Your task to perform on an android device: stop showing notifications on the lock screen Image 0: 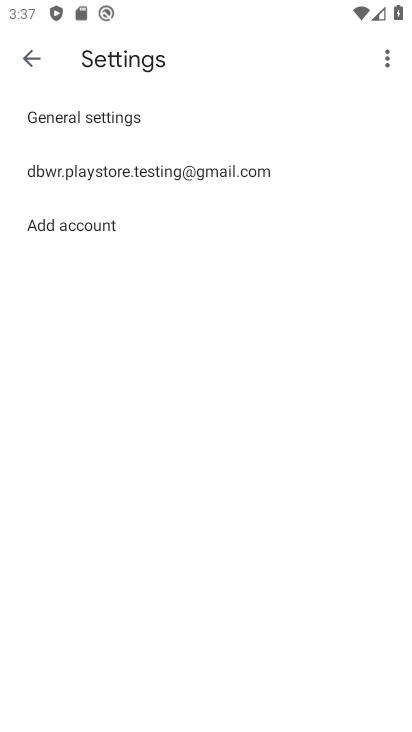
Step 0: press home button
Your task to perform on an android device: stop showing notifications on the lock screen Image 1: 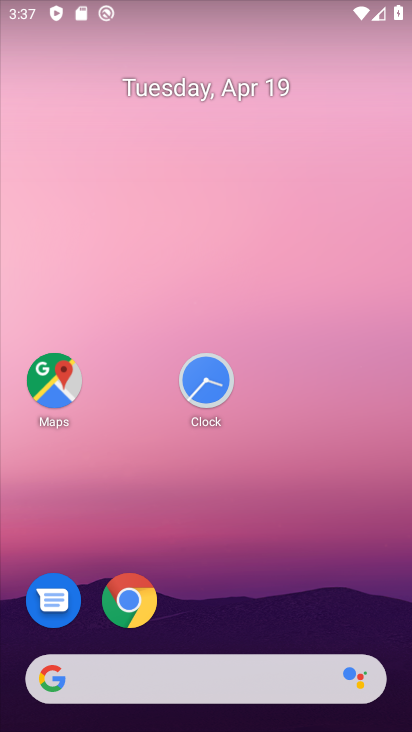
Step 1: drag from (238, 469) to (117, 126)
Your task to perform on an android device: stop showing notifications on the lock screen Image 2: 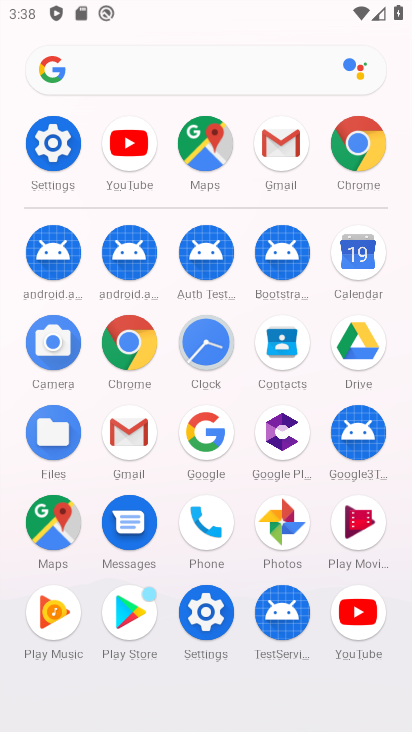
Step 2: click (59, 143)
Your task to perform on an android device: stop showing notifications on the lock screen Image 3: 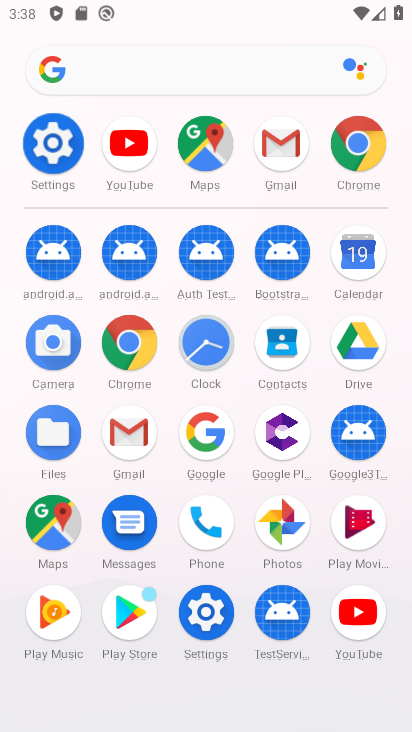
Step 3: click (59, 143)
Your task to perform on an android device: stop showing notifications on the lock screen Image 4: 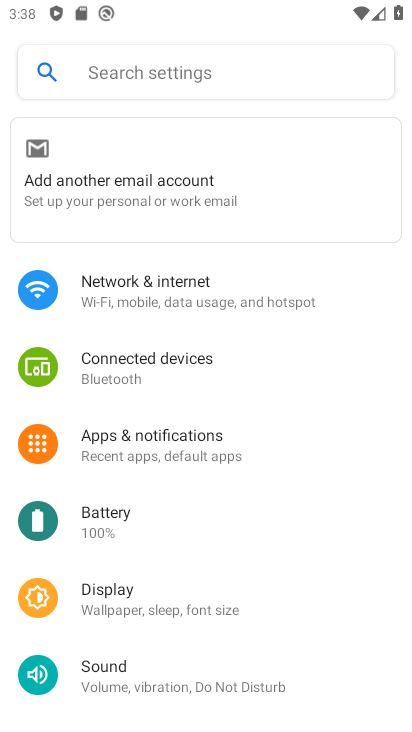
Step 4: click (161, 451)
Your task to perform on an android device: stop showing notifications on the lock screen Image 5: 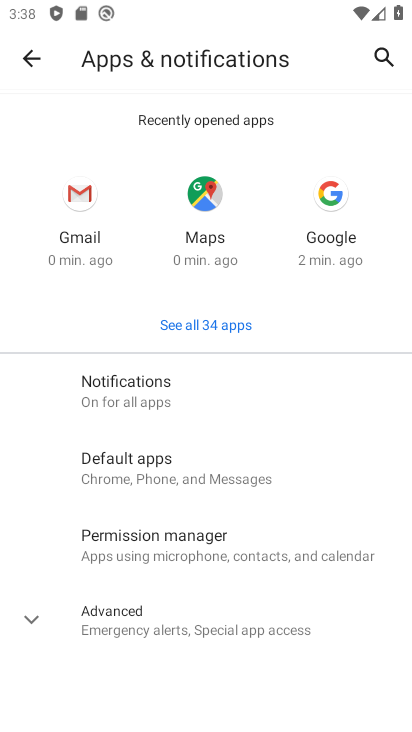
Step 5: click (141, 382)
Your task to perform on an android device: stop showing notifications on the lock screen Image 6: 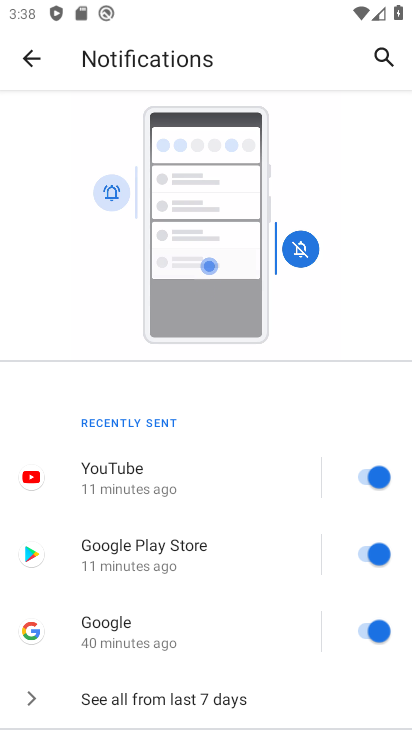
Step 6: drag from (192, 632) to (192, 186)
Your task to perform on an android device: stop showing notifications on the lock screen Image 7: 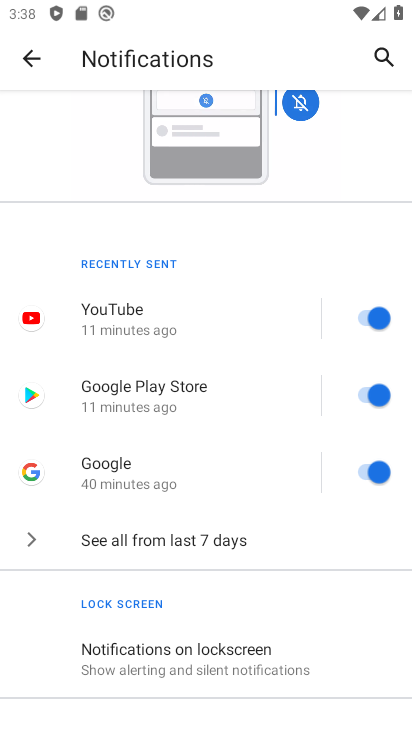
Step 7: click (162, 660)
Your task to perform on an android device: stop showing notifications on the lock screen Image 8: 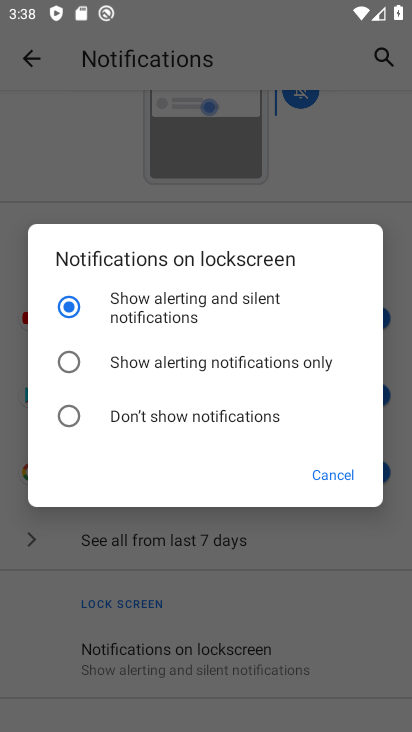
Step 8: click (67, 415)
Your task to perform on an android device: stop showing notifications on the lock screen Image 9: 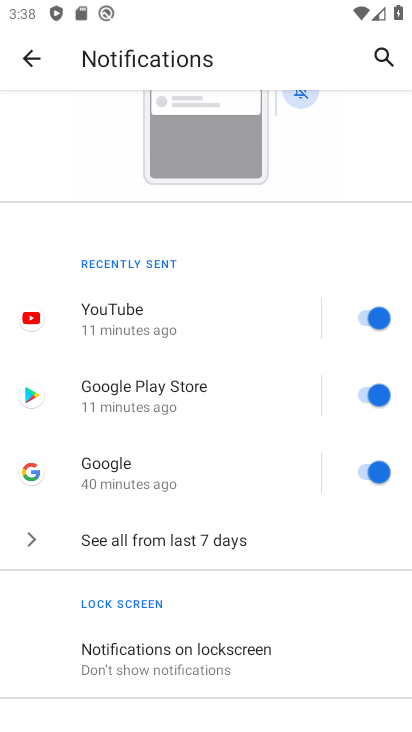
Step 9: task complete